Your task to perform on an android device: Open wifi settings Image 0: 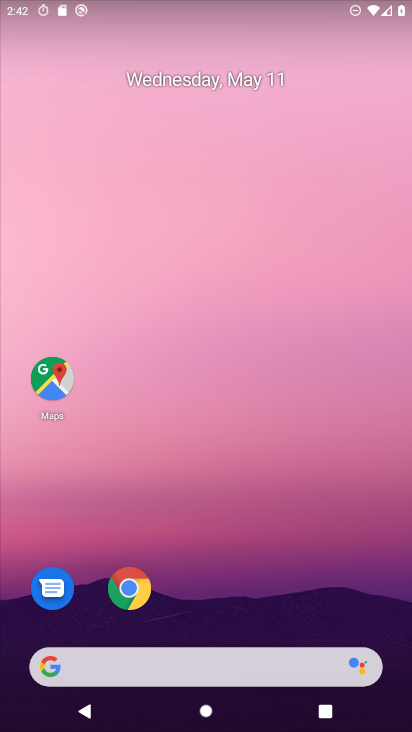
Step 0: drag from (226, 612) to (230, 457)
Your task to perform on an android device: Open wifi settings Image 1: 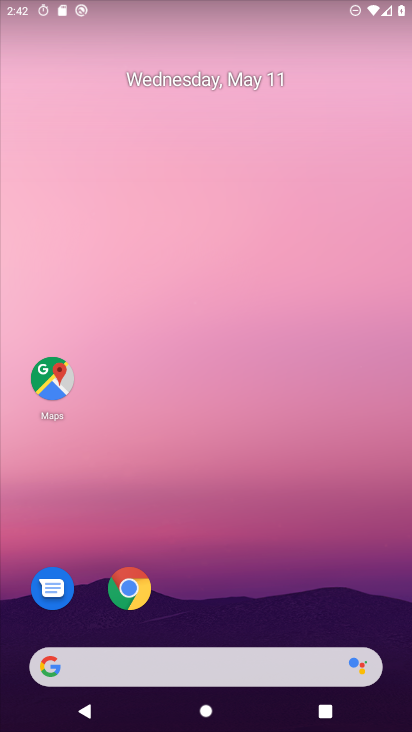
Step 1: drag from (207, 7) to (180, 447)
Your task to perform on an android device: Open wifi settings Image 2: 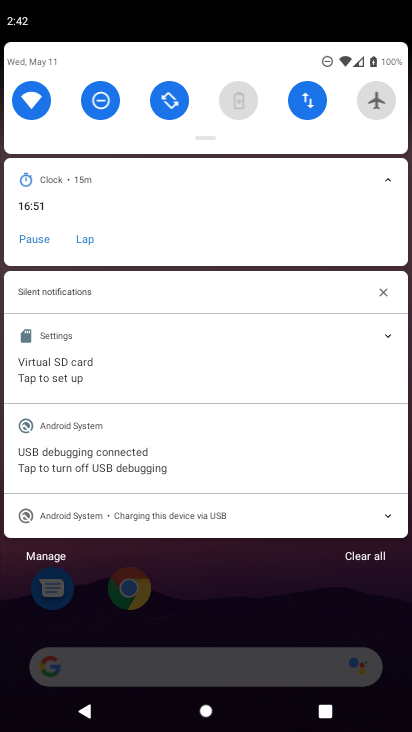
Step 2: click (36, 94)
Your task to perform on an android device: Open wifi settings Image 3: 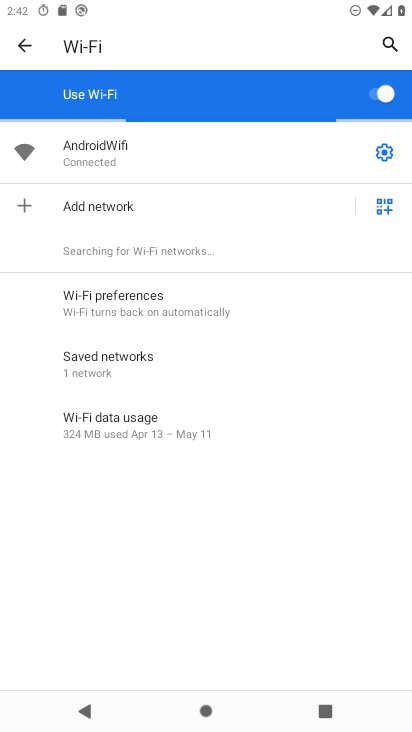
Step 3: task complete